Your task to perform on an android device: Open the Play Movies app and select the watchlist tab. Image 0: 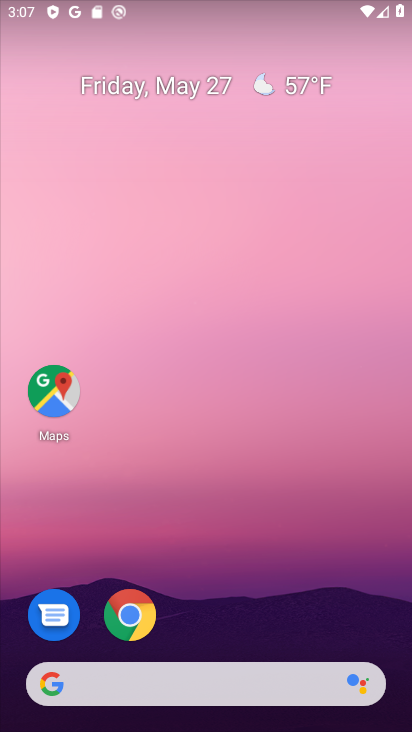
Step 0: drag from (286, 614) to (270, 429)
Your task to perform on an android device: Open the Play Movies app and select the watchlist tab. Image 1: 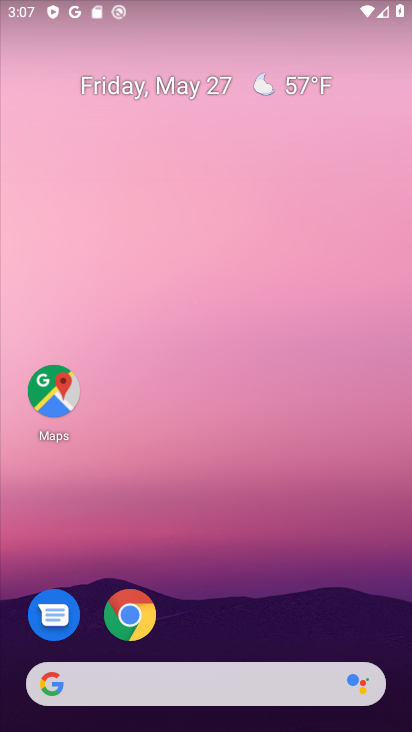
Step 1: drag from (205, 608) to (223, 155)
Your task to perform on an android device: Open the Play Movies app and select the watchlist tab. Image 2: 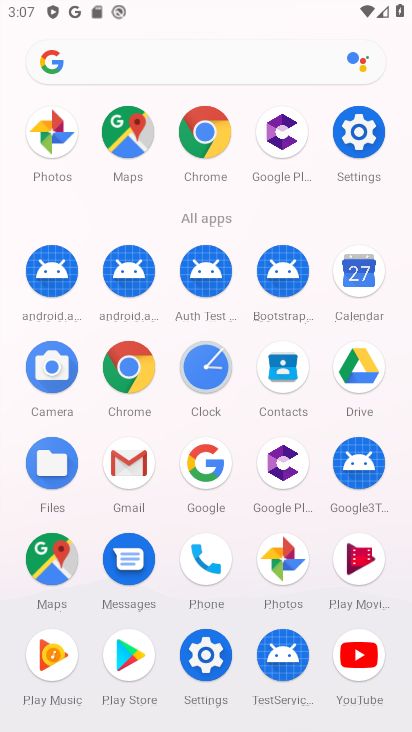
Step 2: click (347, 581)
Your task to perform on an android device: Open the Play Movies app and select the watchlist tab. Image 3: 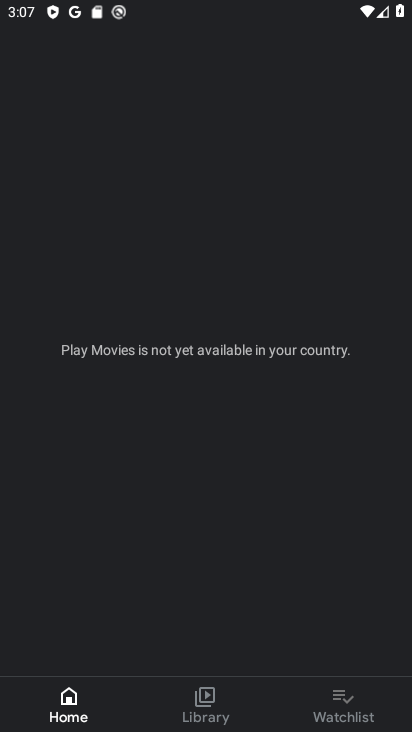
Step 3: click (330, 722)
Your task to perform on an android device: Open the Play Movies app and select the watchlist tab. Image 4: 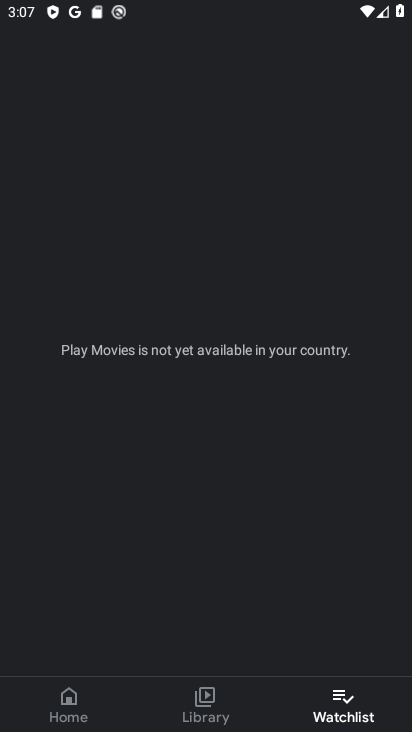
Step 4: task complete